Your task to perform on an android device: all mails in gmail Image 0: 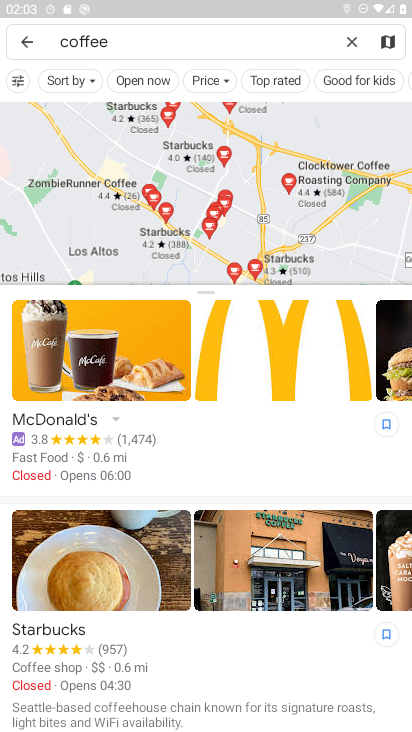
Step 0: press home button
Your task to perform on an android device: all mails in gmail Image 1: 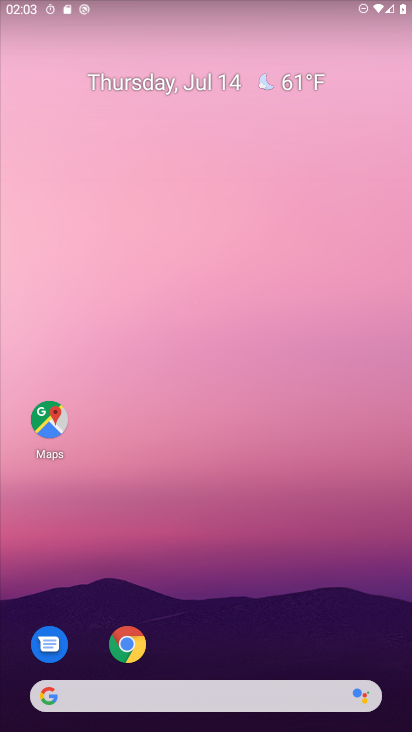
Step 1: drag from (277, 387) to (252, 46)
Your task to perform on an android device: all mails in gmail Image 2: 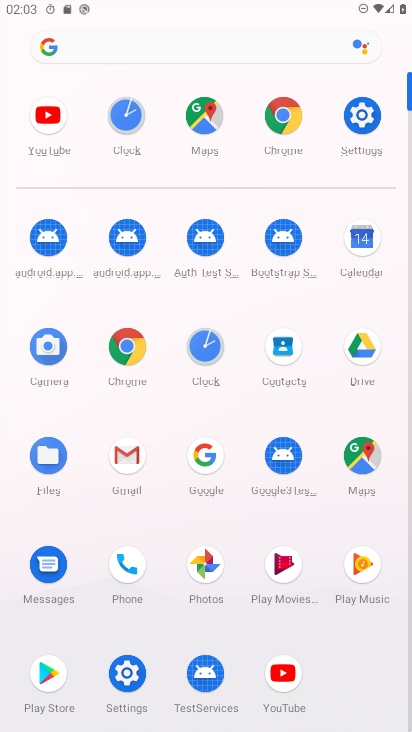
Step 2: click (132, 457)
Your task to perform on an android device: all mails in gmail Image 3: 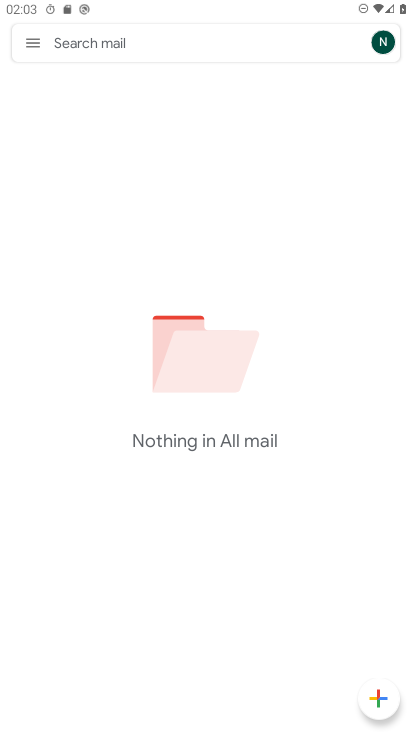
Step 3: click (41, 34)
Your task to perform on an android device: all mails in gmail Image 4: 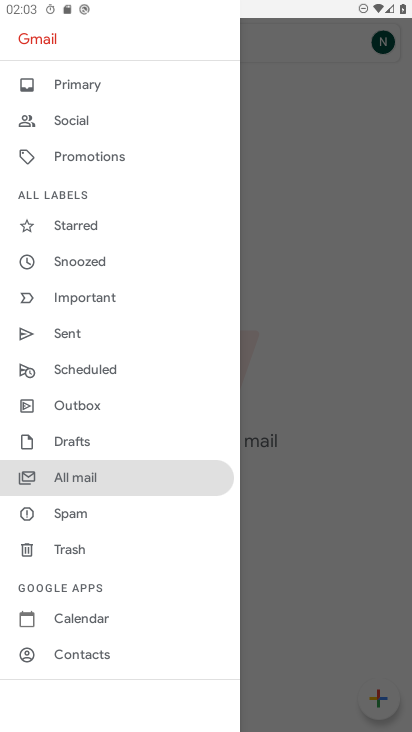
Step 4: click (130, 480)
Your task to perform on an android device: all mails in gmail Image 5: 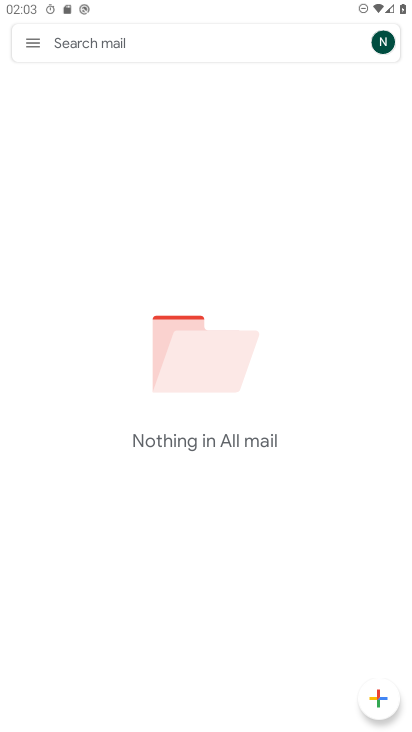
Step 5: task complete